Your task to perform on an android device: find snoozed emails in the gmail app Image 0: 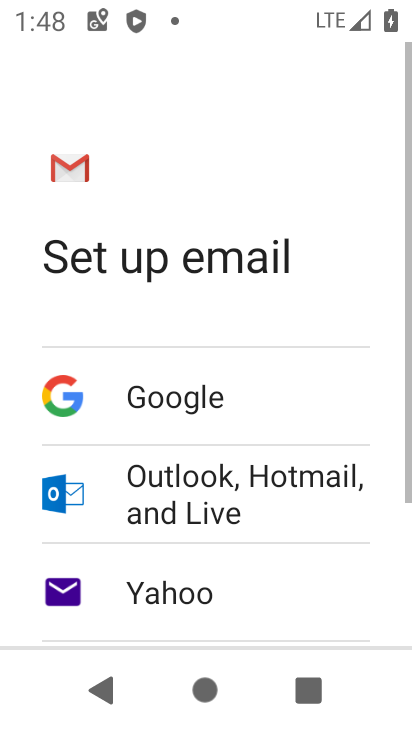
Step 0: press home button
Your task to perform on an android device: find snoozed emails in the gmail app Image 1: 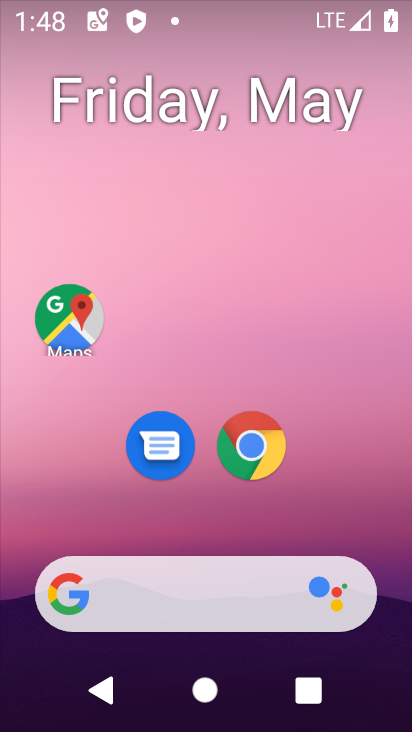
Step 1: drag from (208, 531) to (229, 102)
Your task to perform on an android device: find snoozed emails in the gmail app Image 2: 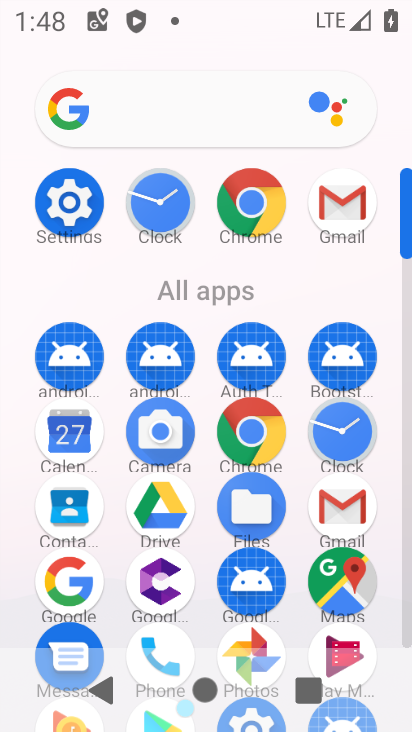
Step 2: click (340, 496)
Your task to perform on an android device: find snoozed emails in the gmail app Image 3: 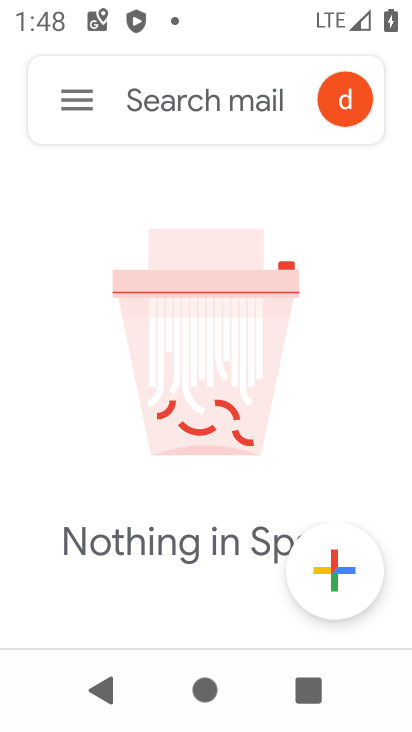
Step 3: click (78, 96)
Your task to perform on an android device: find snoozed emails in the gmail app Image 4: 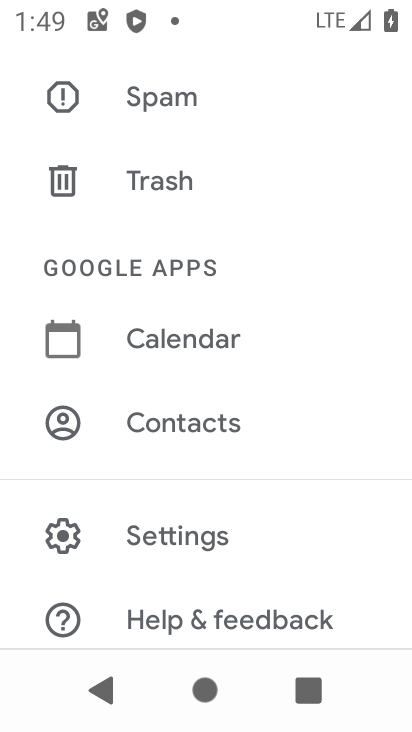
Step 4: drag from (188, 126) to (188, 689)
Your task to perform on an android device: find snoozed emails in the gmail app Image 5: 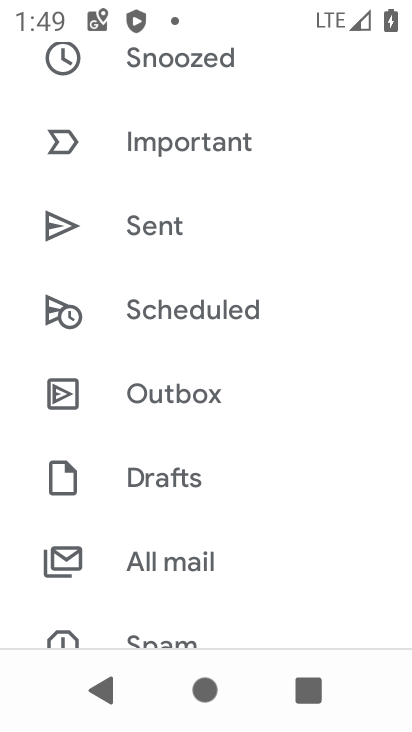
Step 5: click (164, 60)
Your task to perform on an android device: find snoozed emails in the gmail app Image 6: 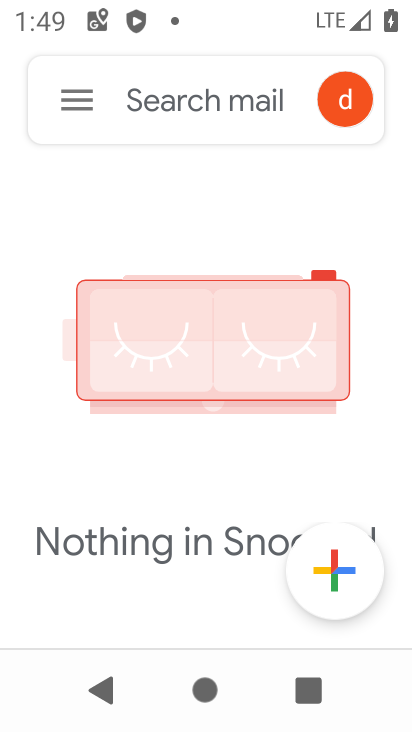
Step 6: task complete